Your task to perform on an android device: Is it going to rain tomorrow? Image 0: 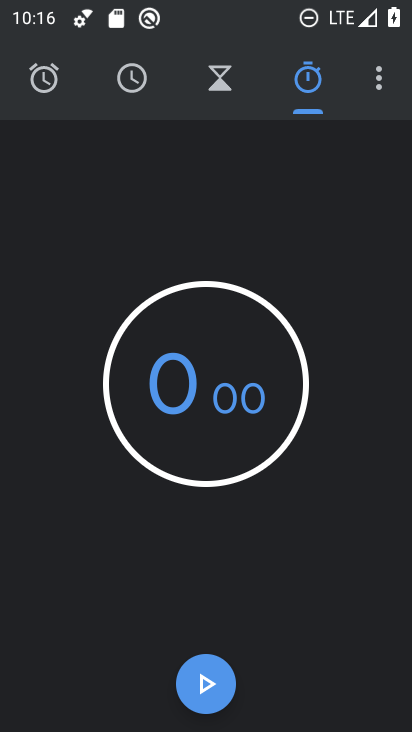
Step 0: press home button
Your task to perform on an android device: Is it going to rain tomorrow? Image 1: 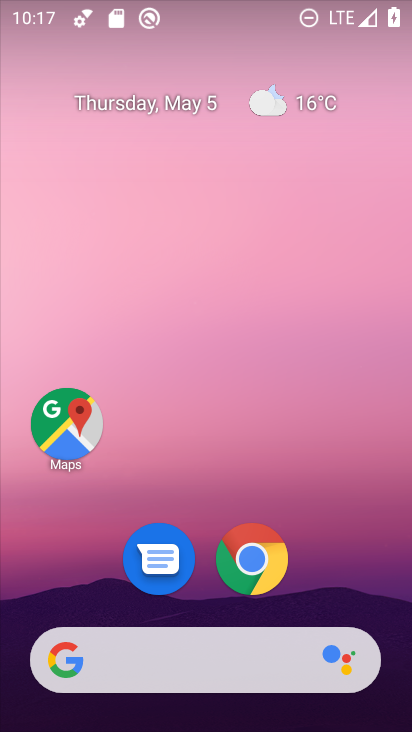
Step 1: click (312, 112)
Your task to perform on an android device: Is it going to rain tomorrow? Image 2: 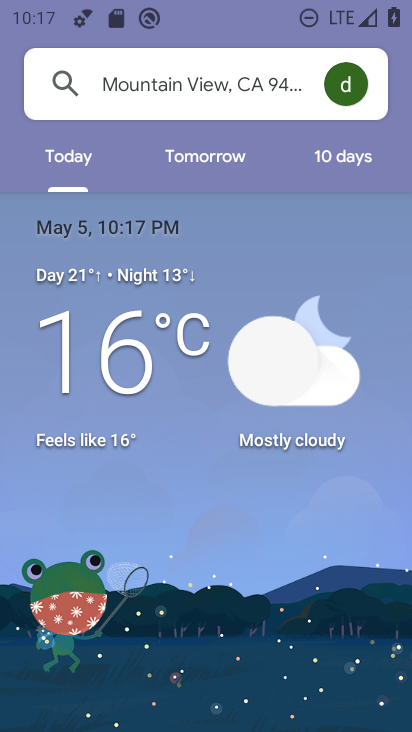
Step 2: click (203, 167)
Your task to perform on an android device: Is it going to rain tomorrow? Image 3: 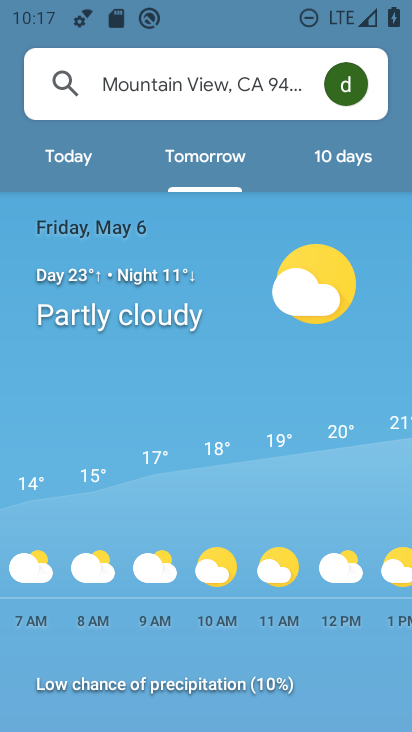
Step 3: task complete